Your task to perform on an android device: show emergency info Image 0: 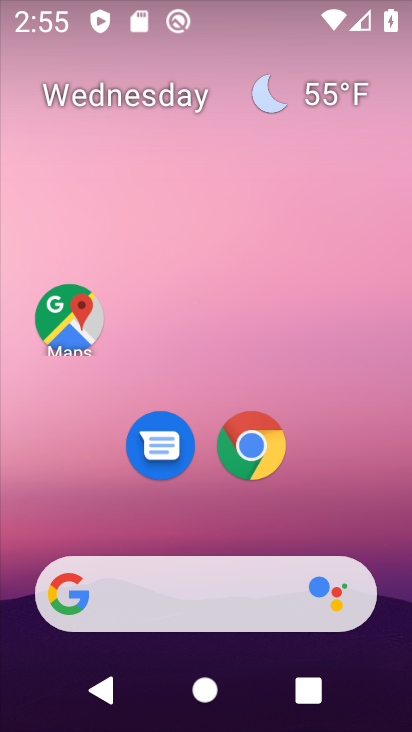
Step 0: click (234, 540)
Your task to perform on an android device: show emergency info Image 1: 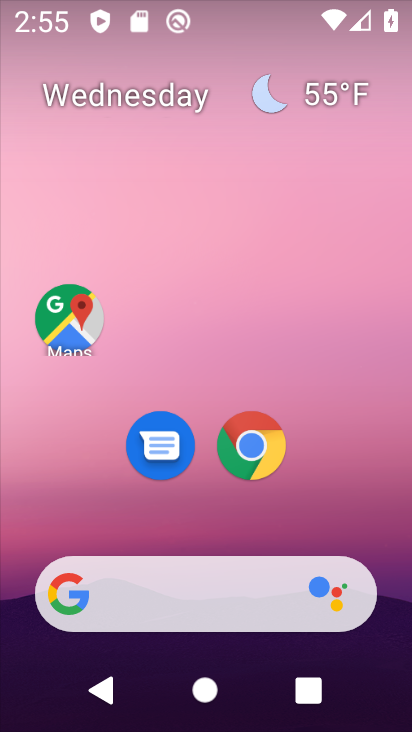
Step 1: drag from (234, 540) to (234, 296)
Your task to perform on an android device: show emergency info Image 2: 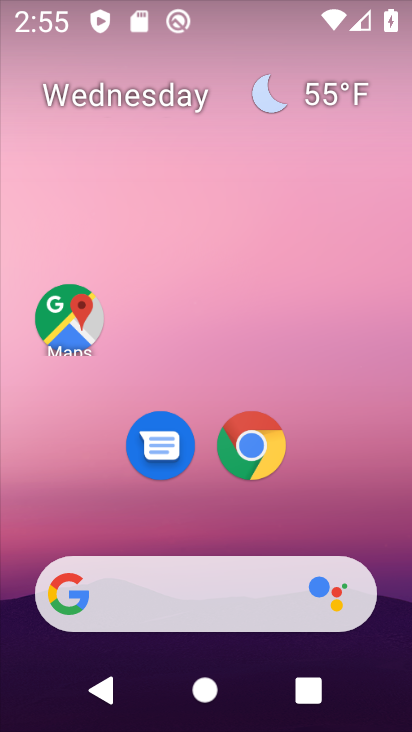
Step 2: click (234, 296)
Your task to perform on an android device: show emergency info Image 3: 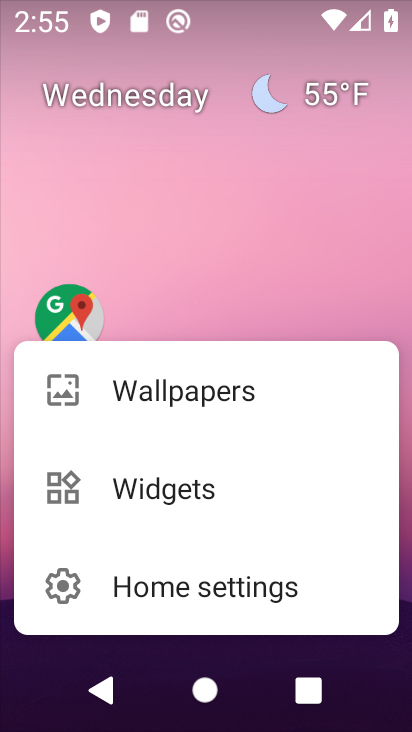
Step 3: drag from (234, 296) to (253, 89)
Your task to perform on an android device: show emergency info Image 4: 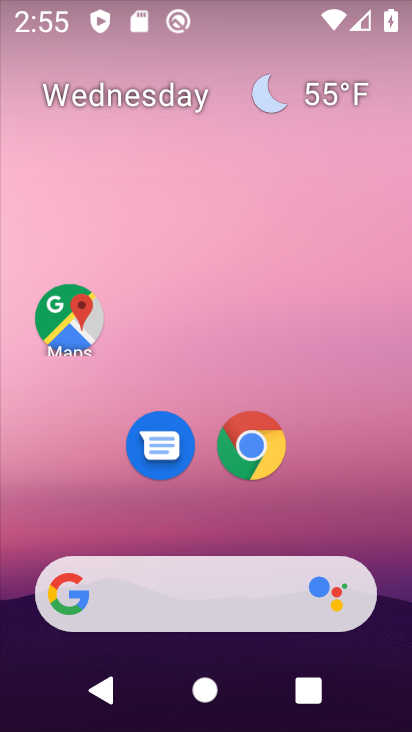
Step 4: drag from (253, 89) to (249, 181)
Your task to perform on an android device: show emergency info Image 5: 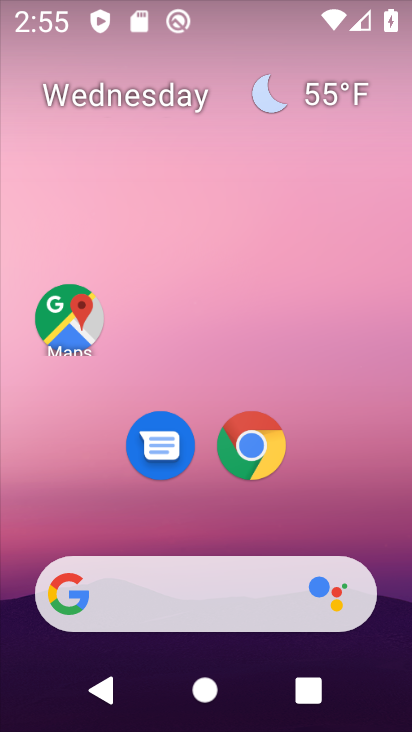
Step 5: drag from (259, 250) to (332, 437)
Your task to perform on an android device: show emergency info Image 6: 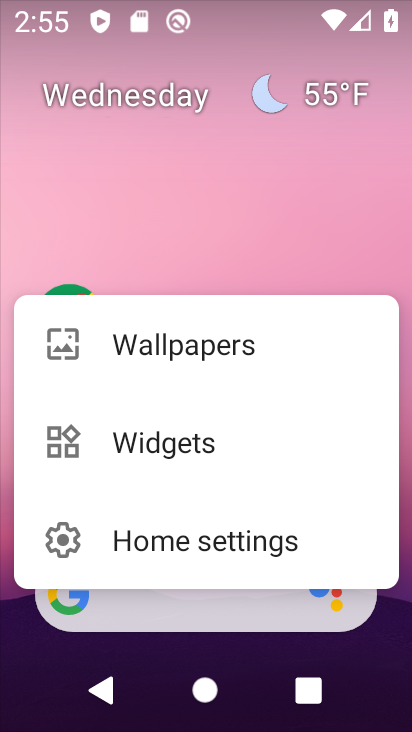
Step 6: click (329, 252)
Your task to perform on an android device: show emergency info Image 7: 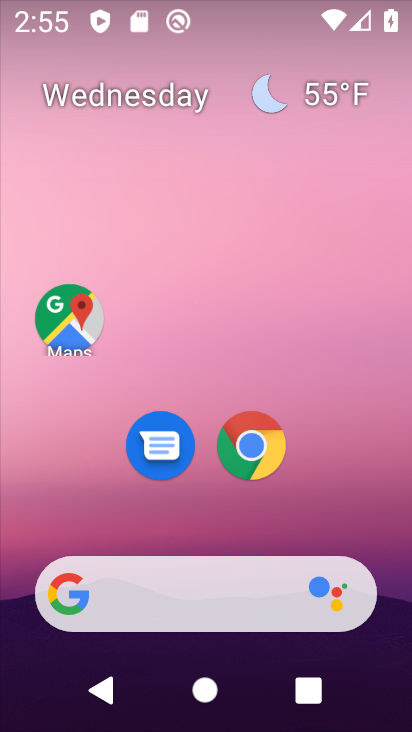
Step 7: drag from (312, 528) to (227, 143)
Your task to perform on an android device: show emergency info Image 8: 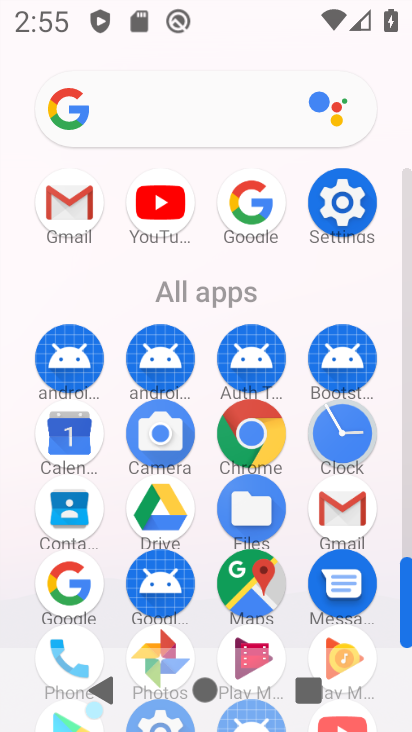
Step 8: click (333, 205)
Your task to perform on an android device: show emergency info Image 9: 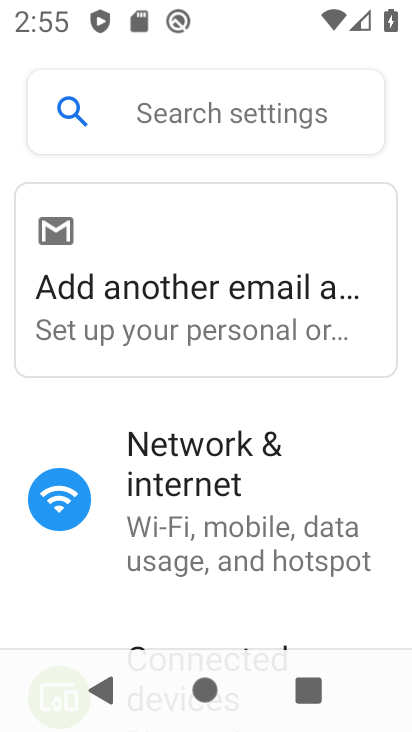
Step 9: drag from (250, 498) to (308, 480)
Your task to perform on an android device: show emergency info Image 10: 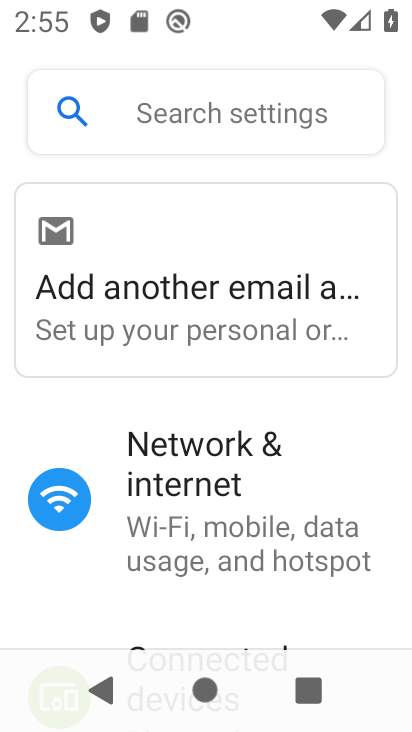
Step 10: drag from (308, 480) to (298, 265)
Your task to perform on an android device: show emergency info Image 11: 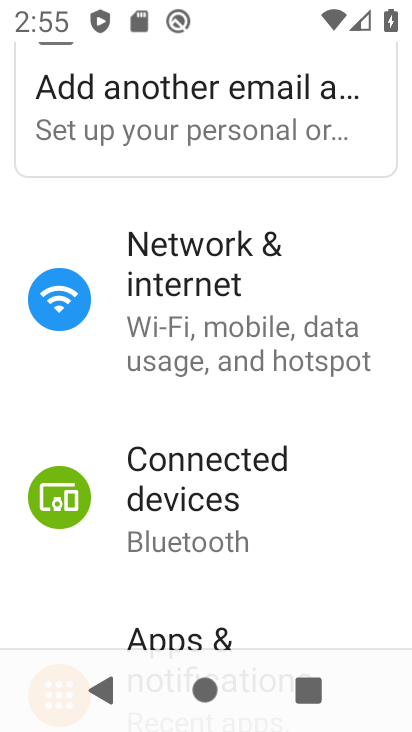
Step 11: drag from (359, 587) to (348, 399)
Your task to perform on an android device: show emergency info Image 12: 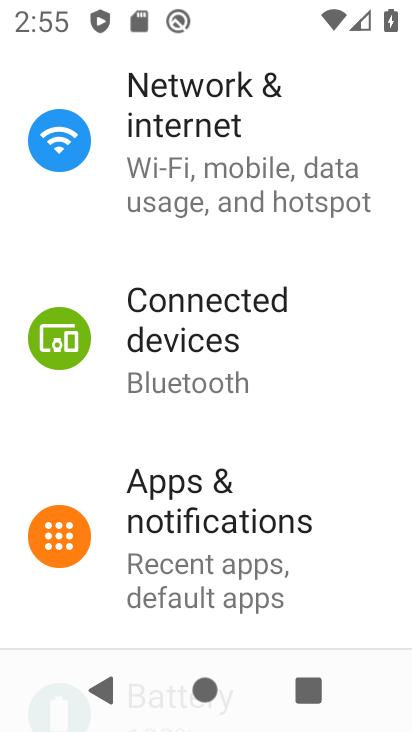
Step 12: drag from (348, 399) to (309, 215)
Your task to perform on an android device: show emergency info Image 13: 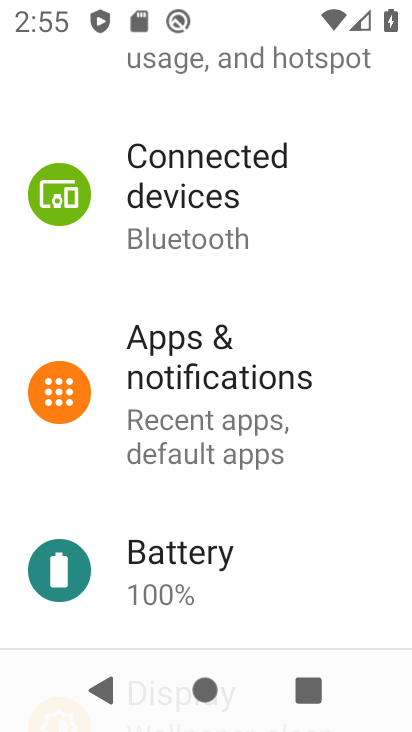
Step 13: drag from (309, 215) to (294, 65)
Your task to perform on an android device: show emergency info Image 14: 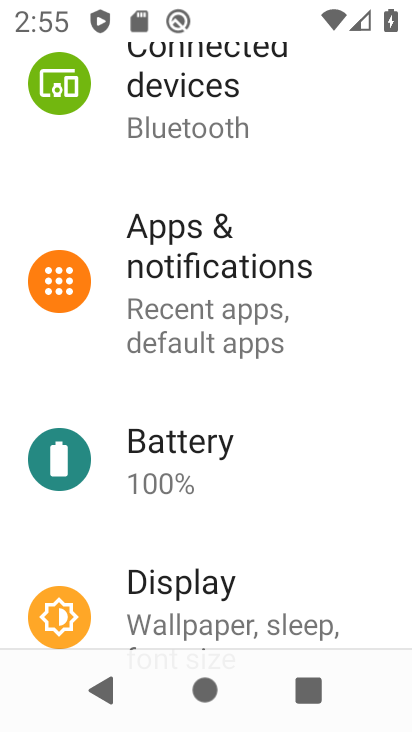
Step 14: drag from (324, 493) to (317, 195)
Your task to perform on an android device: show emergency info Image 15: 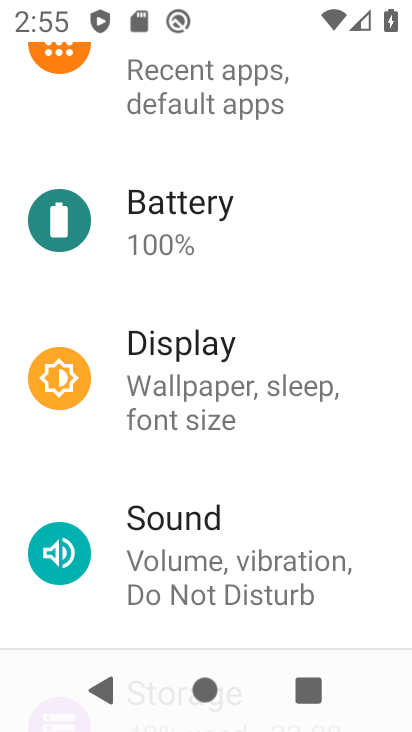
Step 15: click (332, 486)
Your task to perform on an android device: show emergency info Image 16: 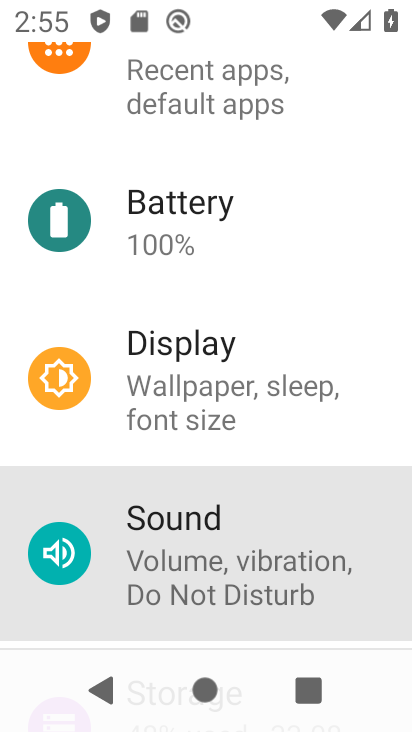
Step 16: drag from (332, 465) to (332, 307)
Your task to perform on an android device: show emergency info Image 17: 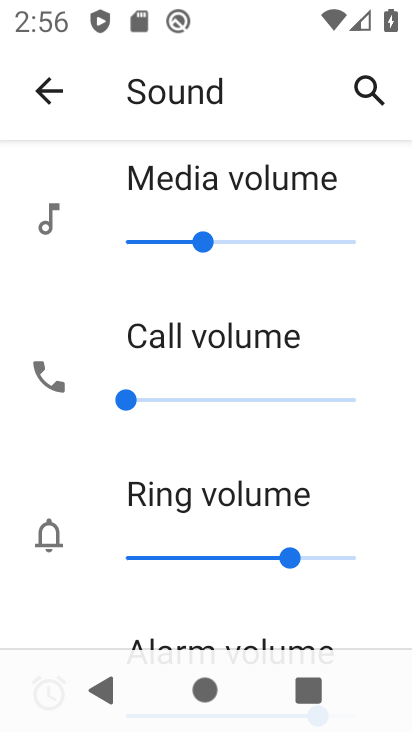
Step 17: press back button
Your task to perform on an android device: show emergency info Image 18: 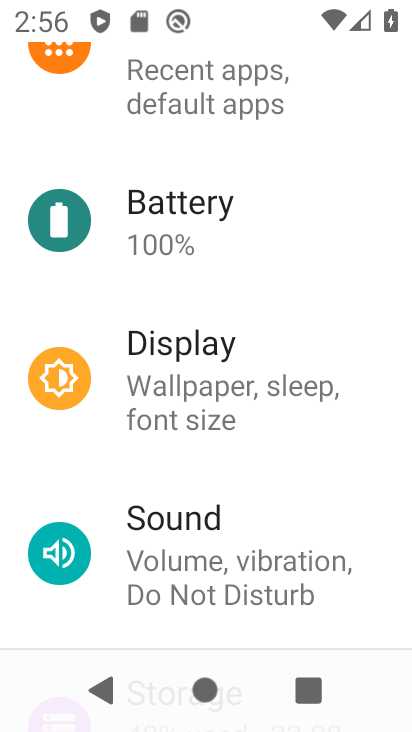
Step 18: drag from (291, 518) to (259, 297)
Your task to perform on an android device: show emergency info Image 19: 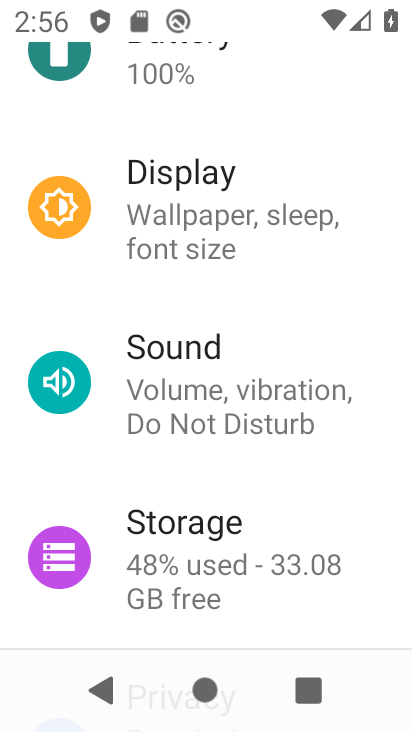
Step 19: drag from (266, 461) to (251, 50)
Your task to perform on an android device: show emergency info Image 20: 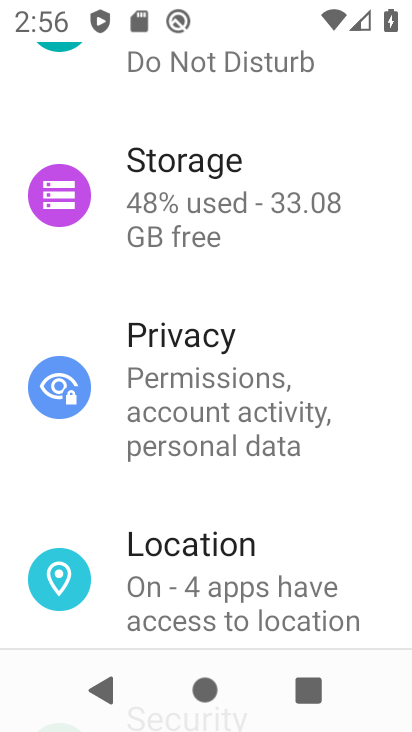
Step 20: drag from (196, 392) to (192, 93)
Your task to perform on an android device: show emergency info Image 21: 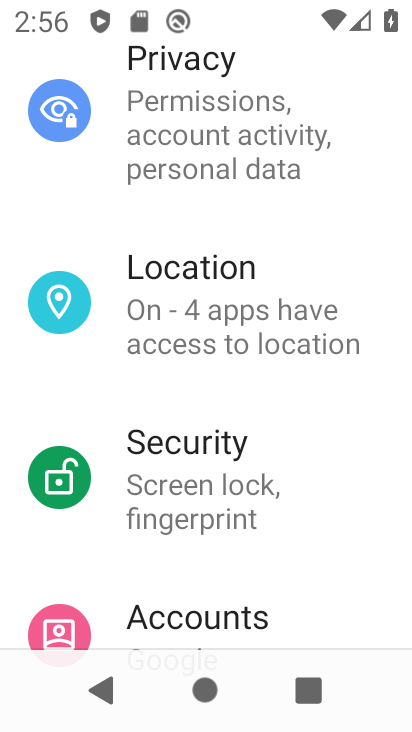
Step 21: drag from (255, 458) to (232, 36)
Your task to perform on an android device: show emergency info Image 22: 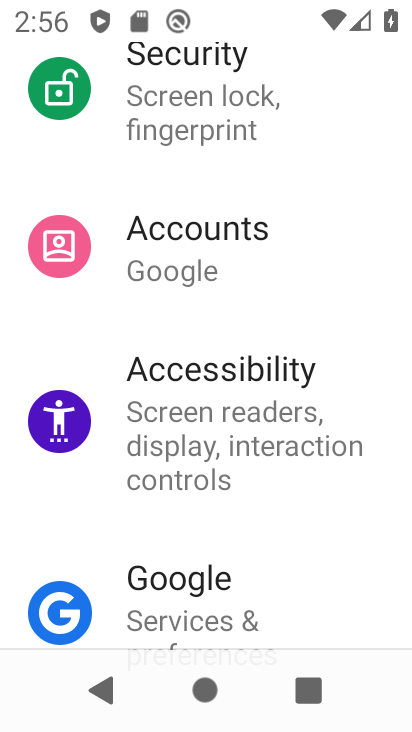
Step 22: drag from (201, 463) to (195, 93)
Your task to perform on an android device: show emergency info Image 23: 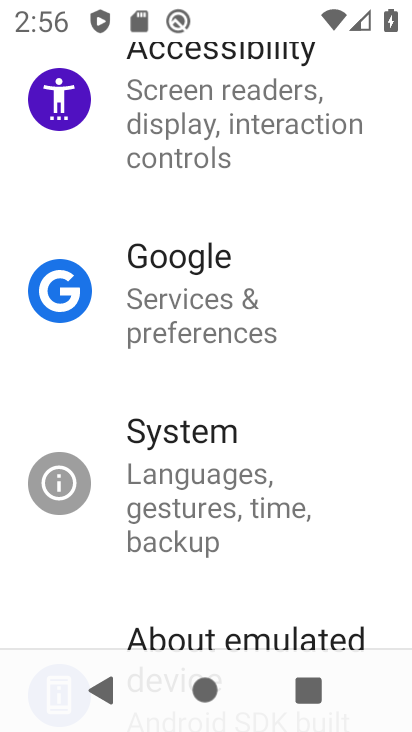
Step 23: drag from (265, 539) to (242, 177)
Your task to perform on an android device: show emergency info Image 24: 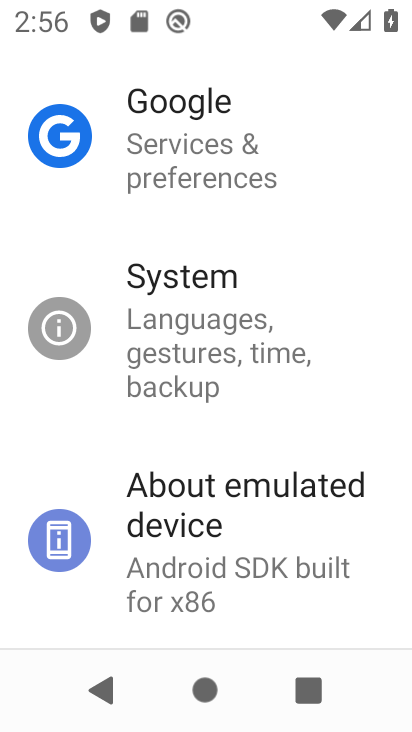
Step 24: click (262, 534)
Your task to perform on an android device: show emergency info Image 25: 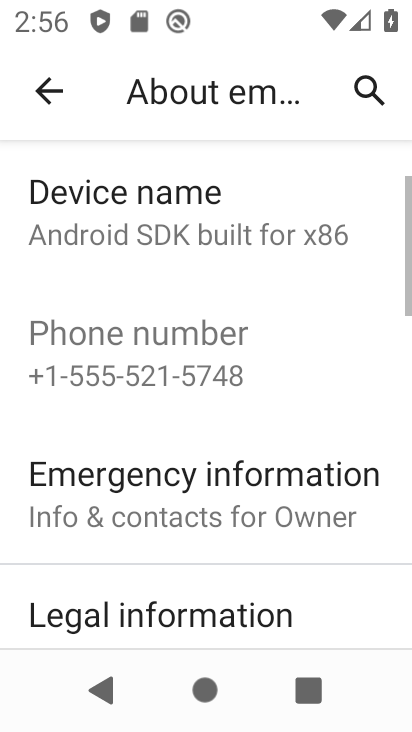
Step 25: drag from (269, 490) to (189, 216)
Your task to perform on an android device: show emergency info Image 26: 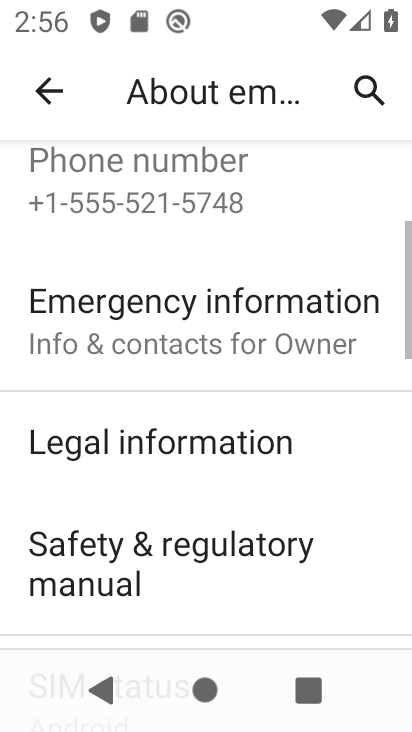
Step 26: click (220, 305)
Your task to perform on an android device: show emergency info Image 27: 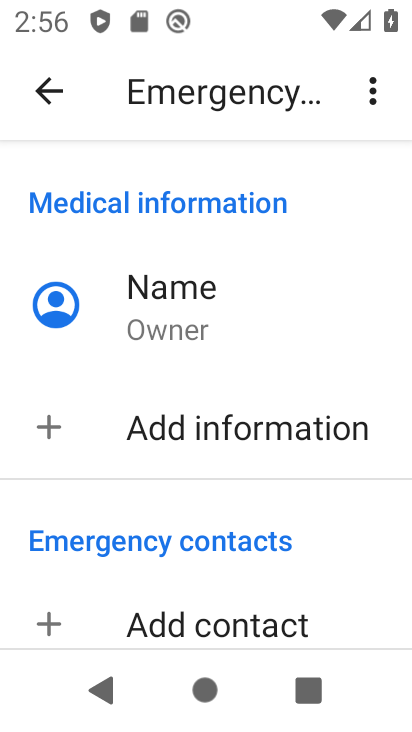
Step 27: task complete